Your task to perform on an android device: Go to display settings Image 0: 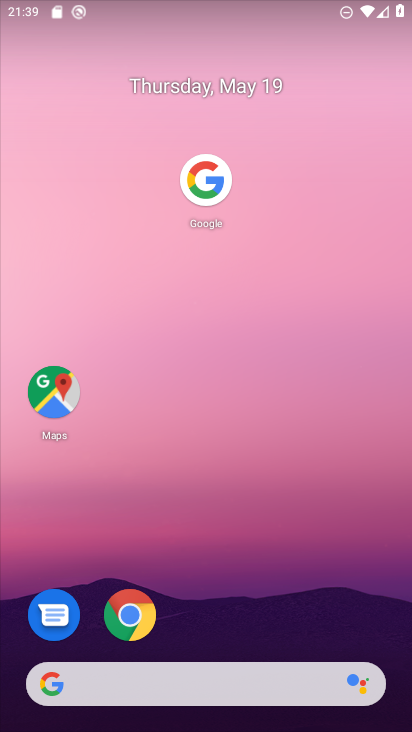
Step 0: drag from (279, 553) to (279, 70)
Your task to perform on an android device: Go to display settings Image 1: 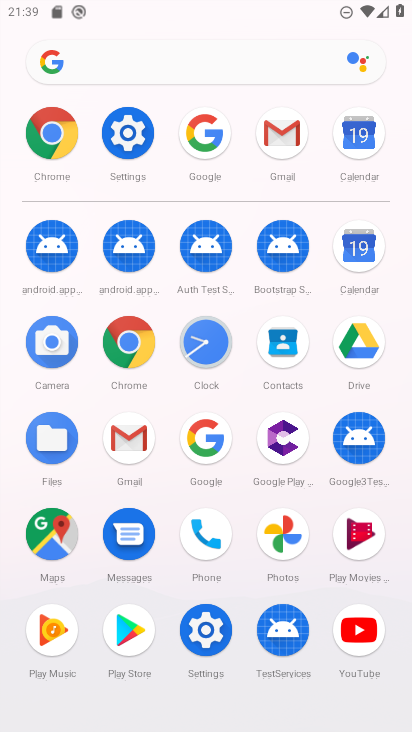
Step 1: click (207, 631)
Your task to perform on an android device: Go to display settings Image 2: 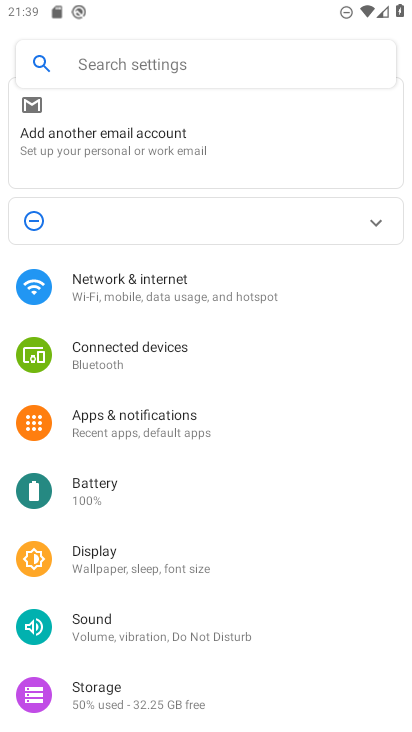
Step 2: drag from (149, 626) to (156, 550)
Your task to perform on an android device: Go to display settings Image 3: 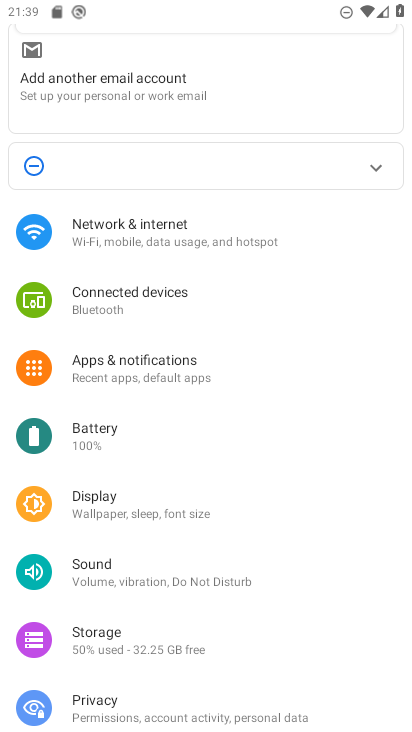
Step 3: click (144, 509)
Your task to perform on an android device: Go to display settings Image 4: 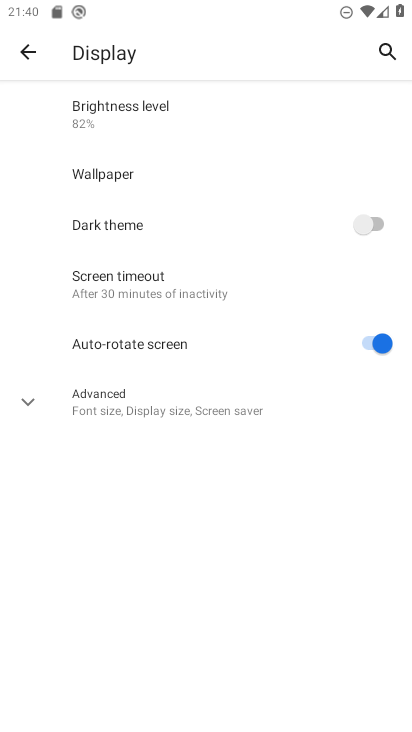
Step 4: task complete